Your task to perform on an android device: Search for the new Air Jordan 13 on Nike.com Image 0: 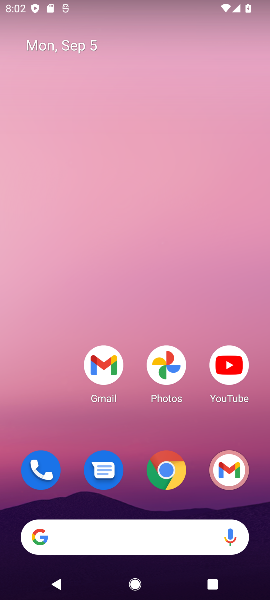
Step 0: click (137, 533)
Your task to perform on an android device: Search for the new Air Jordan 13 on Nike.com Image 1: 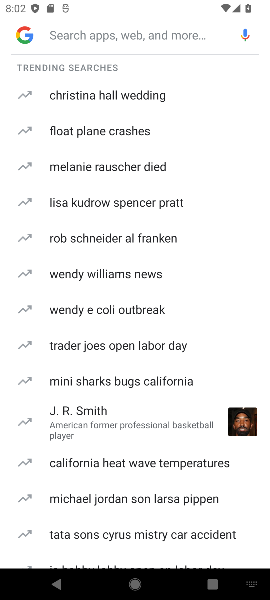
Step 1: type "nike.com"
Your task to perform on an android device: Search for the new Air Jordan 13 on Nike.com Image 2: 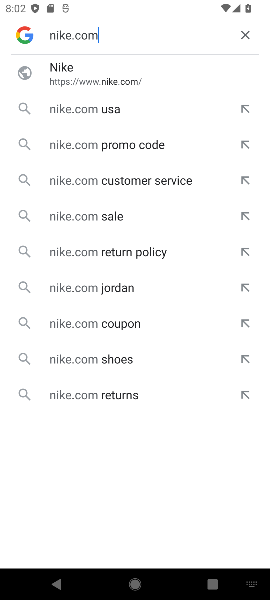
Step 2: click (72, 70)
Your task to perform on an android device: Search for the new Air Jordan 13 on Nike.com Image 3: 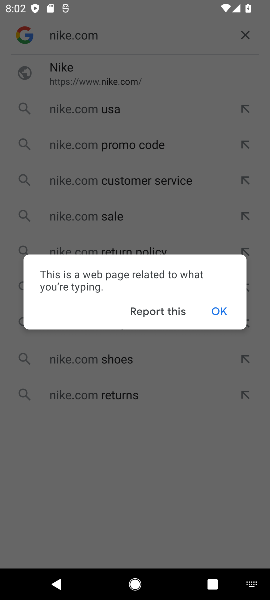
Step 3: click (215, 307)
Your task to perform on an android device: Search for the new Air Jordan 13 on Nike.com Image 4: 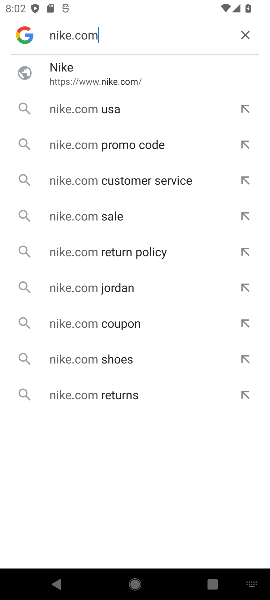
Step 4: click (68, 66)
Your task to perform on an android device: Search for the new Air Jordan 13 on Nike.com Image 5: 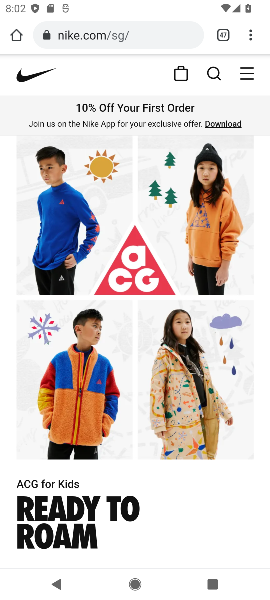
Step 5: click (213, 68)
Your task to perform on an android device: Search for the new Air Jordan 13 on Nike.com Image 6: 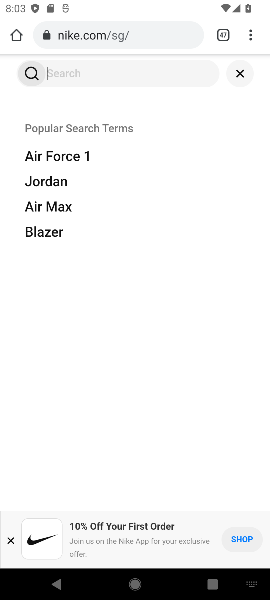
Step 6: type "new Air Jordan 13 "
Your task to perform on an android device: Search for the new Air Jordan 13 on Nike.com Image 7: 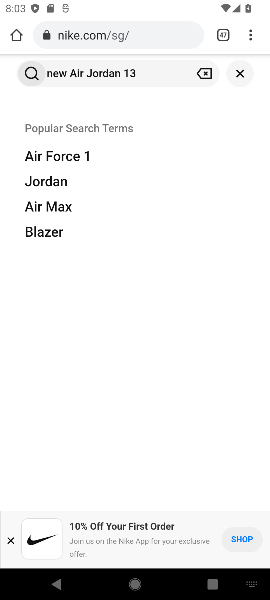
Step 7: click (26, 68)
Your task to perform on an android device: Search for the new Air Jordan 13 on Nike.com Image 8: 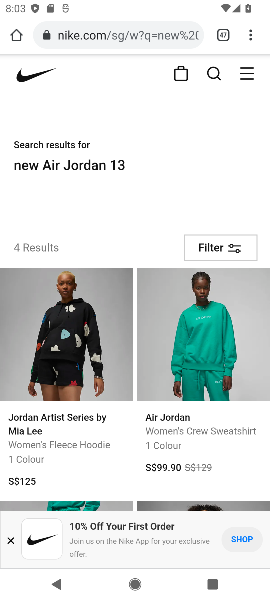
Step 8: task complete